Your task to perform on an android device: toggle airplane mode Image 0: 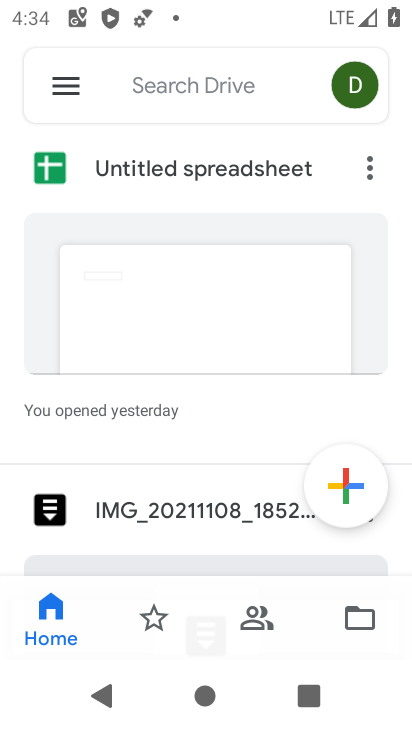
Step 0: press home button
Your task to perform on an android device: toggle airplane mode Image 1: 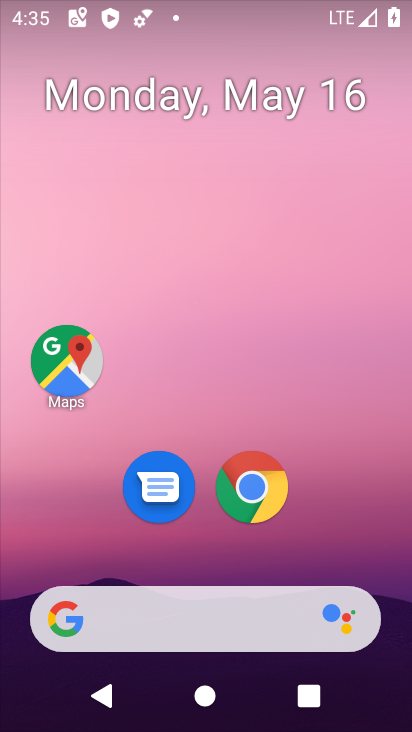
Step 1: drag from (392, 603) to (264, 74)
Your task to perform on an android device: toggle airplane mode Image 2: 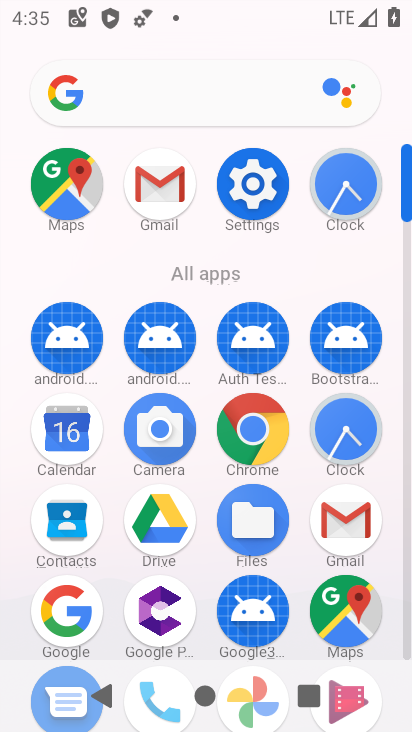
Step 2: click (408, 643)
Your task to perform on an android device: toggle airplane mode Image 3: 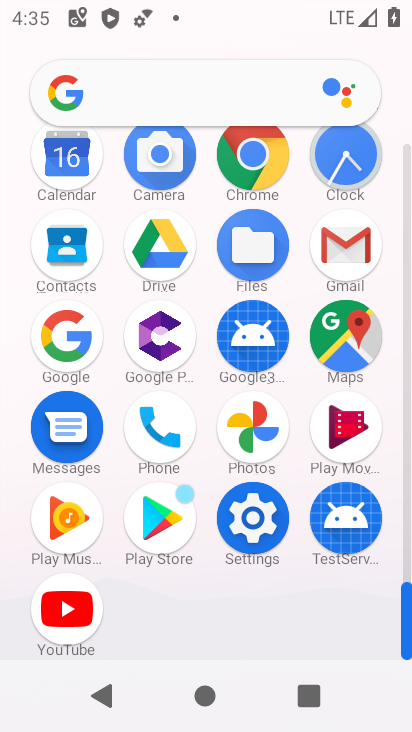
Step 3: click (255, 518)
Your task to perform on an android device: toggle airplane mode Image 4: 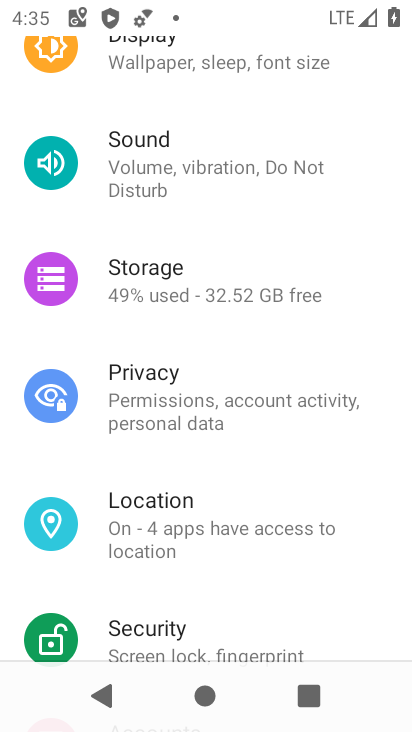
Step 4: drag from (357, 147) to (351, 538)
Your task to perform on an android device: toggle airplane mode Image 5: 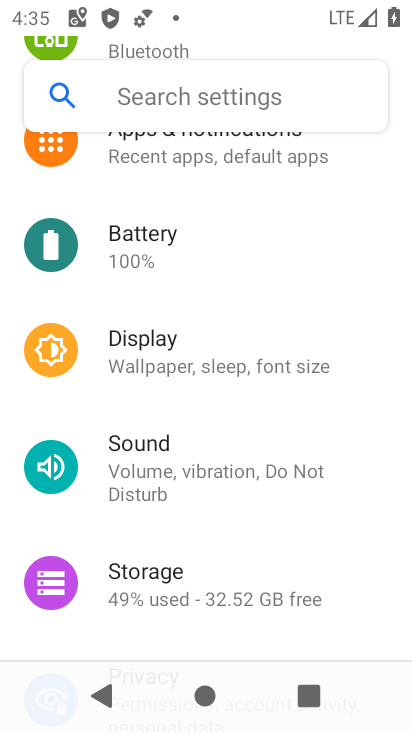
Step 5: drag from (338, 172) to (336, 503)
Your task to perform on an android device: toggle airplane mode Image 6: 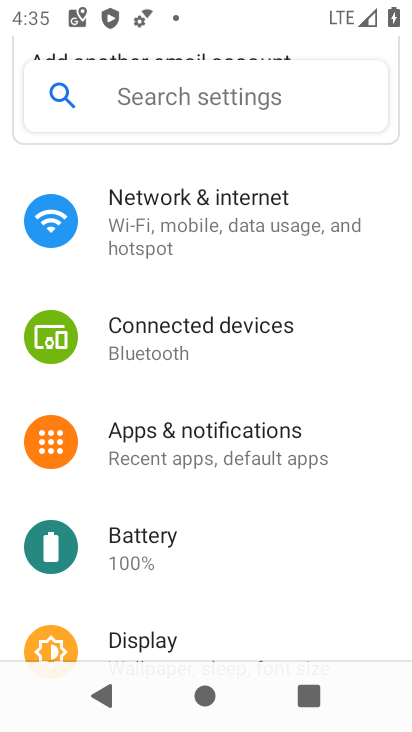
Step 6: click (138, 216)
Your task to perform on an android device: toggle airplane mode Image 7: 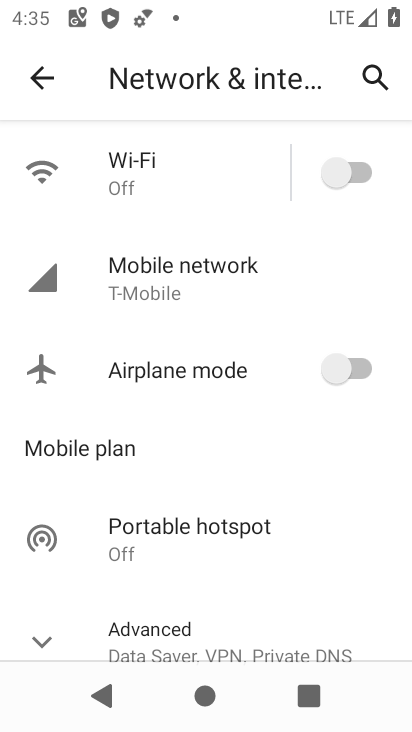
Step 7: click (360, 365)
Your task to perform on an android device: toggle airplane mode Image 8: 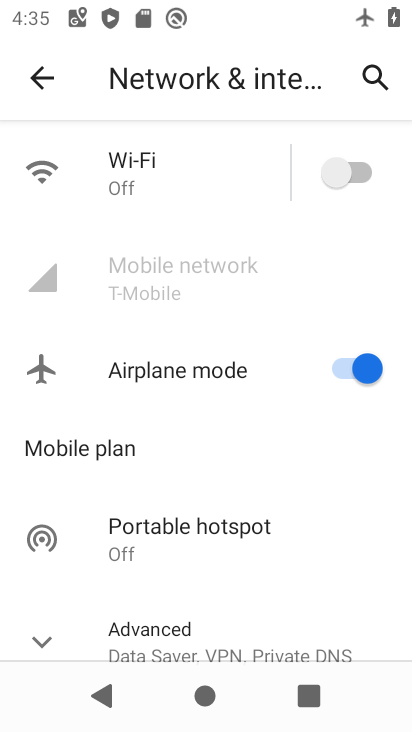
Step 8: task complete